Your task to perform on an android device: check the backup settings in the google photos Image 0: 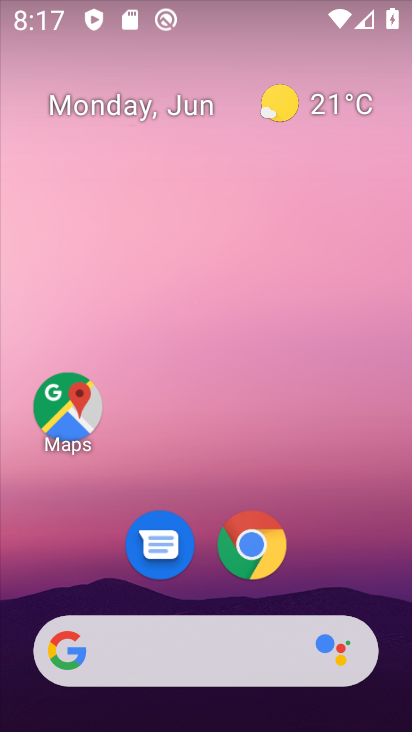
Step 0: drag from (311, 558) to (361, 184)
Your task to perform on an android device: check the backup settings in the google photos Image 1: 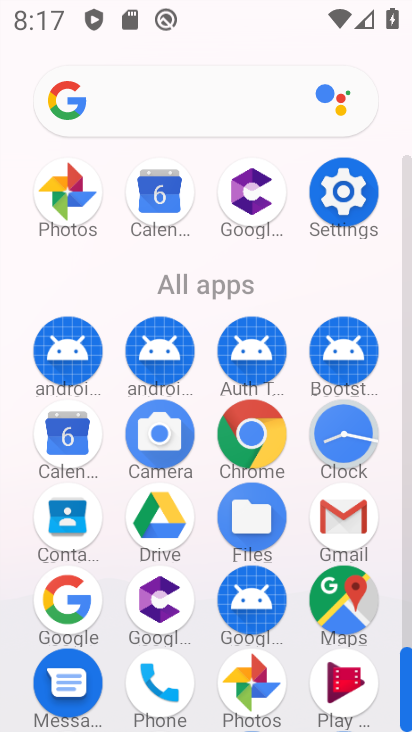
Step 1: click (73, 197)
Your task to perform on an android device: check the backup settings in the google photos Image 2: 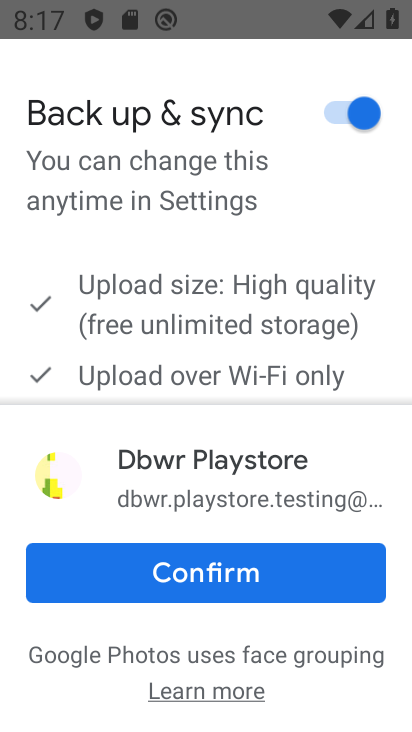
Step 2: click (168, 560)
Your task to perform on an android device: check the backup settings in the google photos Image 3: 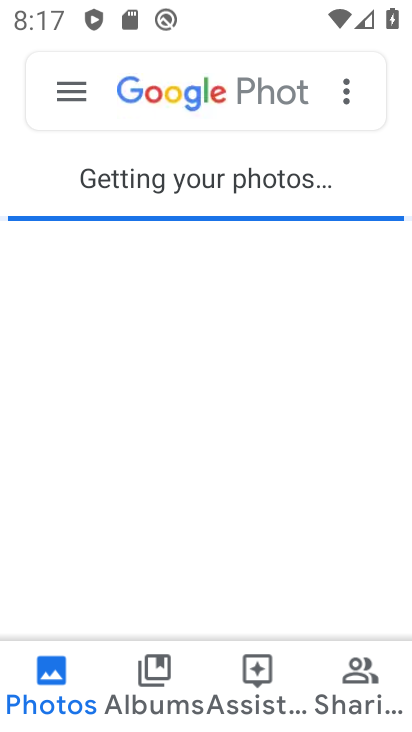
Step 3: click (57, 103)
Your task to perform on an android device: check the backup settings in the google photos Image 4: 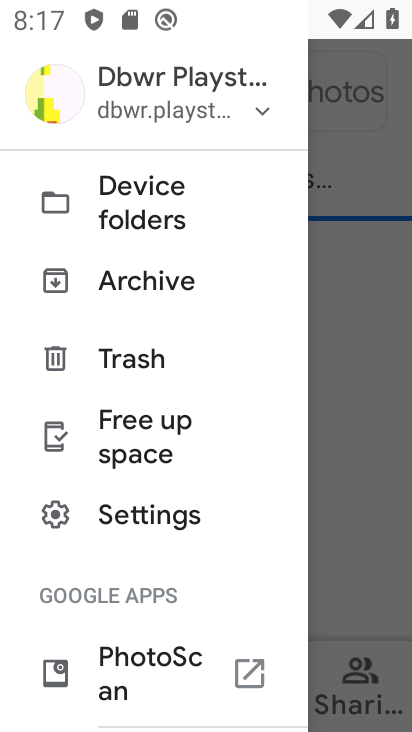
Step 4: click (165, 512)
Your task to perform on an android device: check the backup settings in the google photos Image 5: 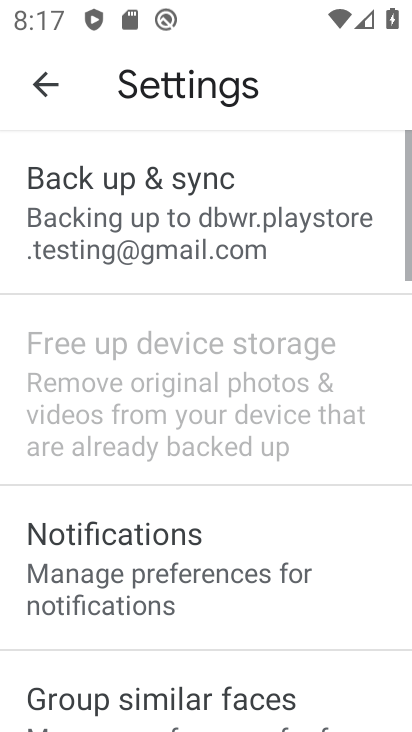
Step 5: click (172, 230)
Your task to perform on an android device: check the backup settings in the google photos Image 6: 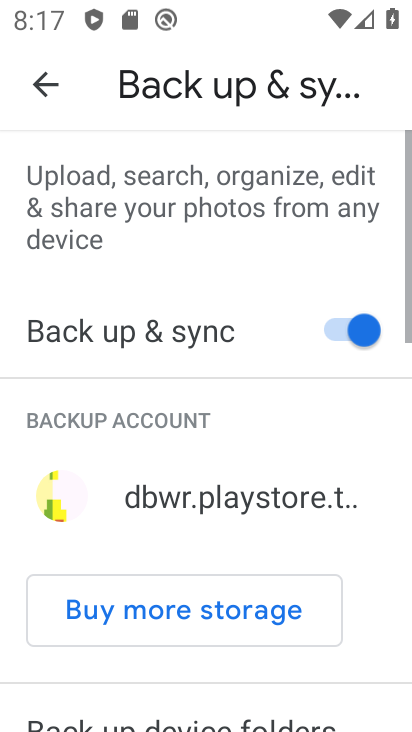
Step 6: task complete